Your task to perform on an android device: turn off smart reply in the gmail app Image 0: 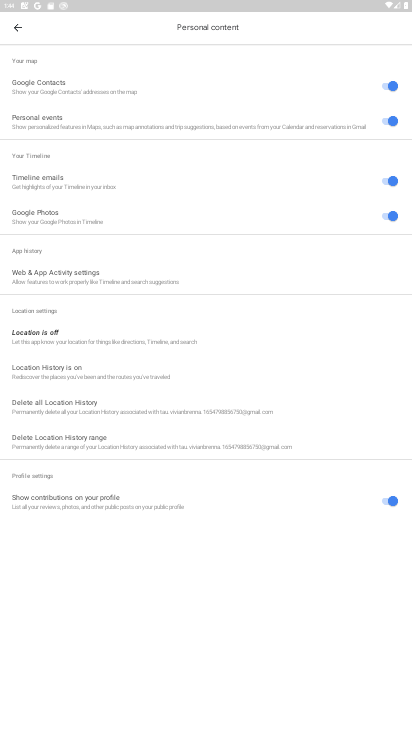
Step 0: press home button
Your task to perform on an android device: turn off smart reply in the gmail app Image 1: 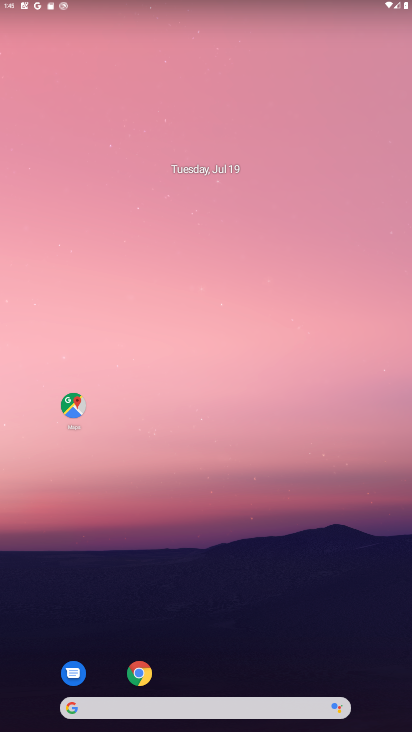
Step 1: drag from (174, 723) to (408, 69)
Your task to perform on an android device: turn off smart reply in the gmail app Image 2: 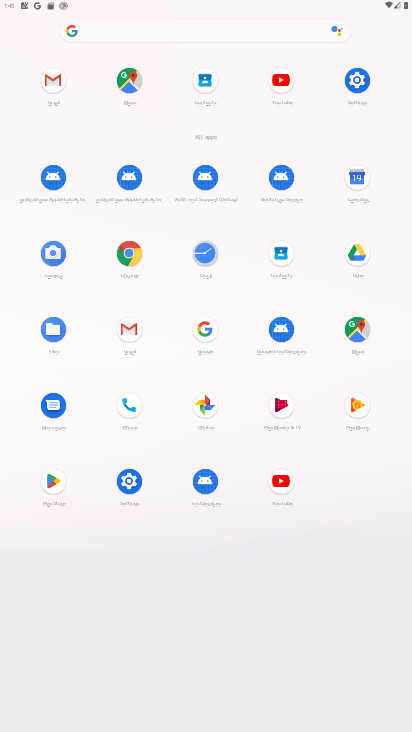
Step 2: click (49, 77)
Your task to perform on an android device: turn off smart reply in the gmail app Image 3: 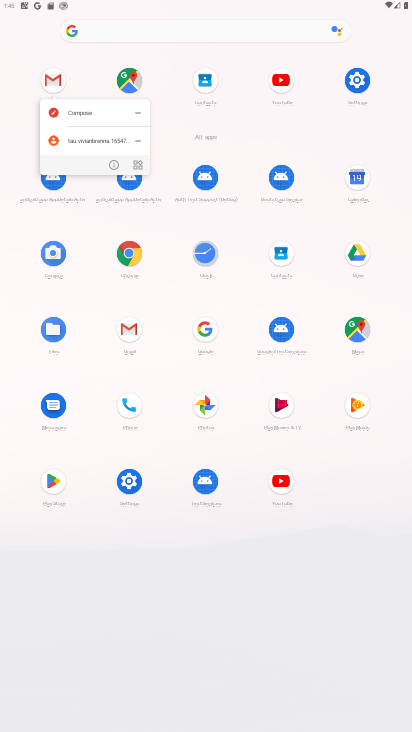
Step 3: click (54, 75)
Your task to perform on an android device: turn off smart reply in the gmail app Image 4: 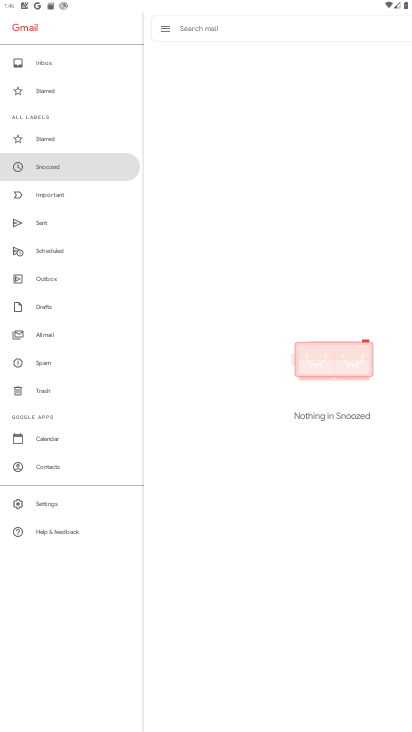
Step 4: click (75, 505)
Your task to perform on an android device: turn off smart reply in the gmail app Image 5: 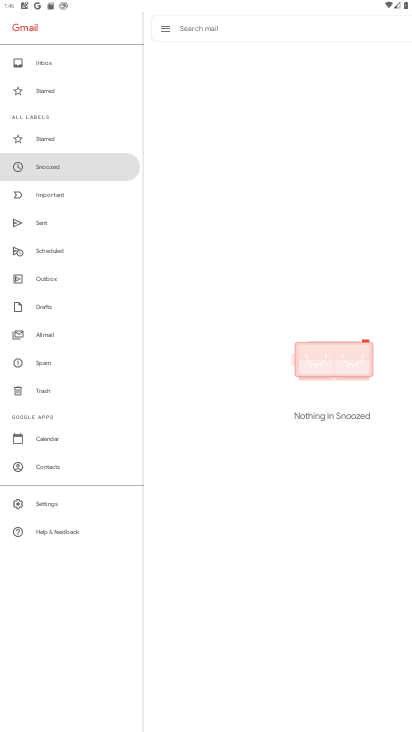
Step 5: click (75, 505)
Your task to perform on an android device: turn off smart reply in the gmail app Image 6: 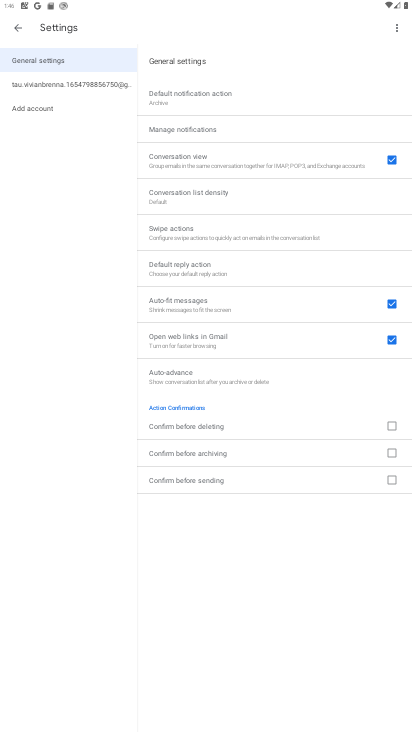
Step 6: click (116, 82)
Your task to perform on an android device: turn off smart reply in the gmail app Image 7: 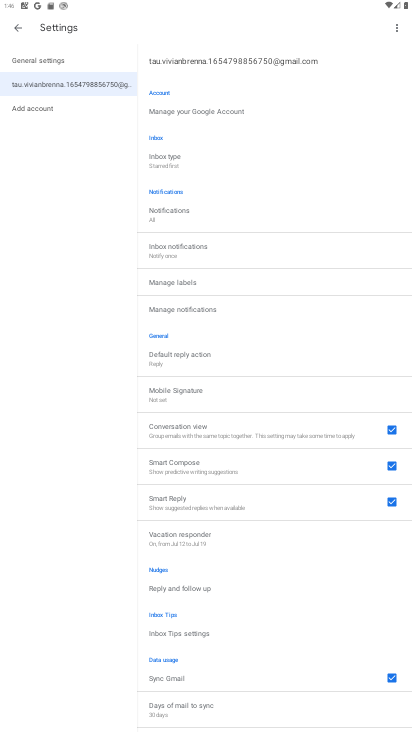
Step 7: click (393, 500)
Your task to perform on an android device: turn off smart reply in the gmail app Image 8: 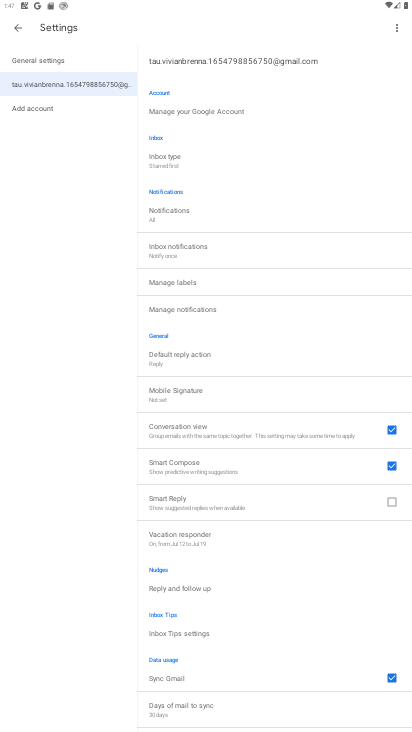
Step 8: task complete